Your task to perform on an android device: open app "VLC for Android" Image 0: 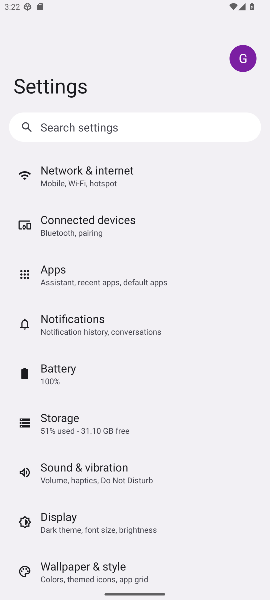
Step 0: press home button
Your task to perform on an android device: open app "VLC for Android" Image 1: 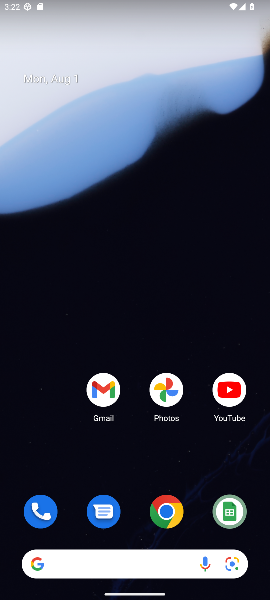
Step 1: drag from (105, 487) to (105, 24)
Your task to perform on an android device: open app "VLC for Android" Image 2: 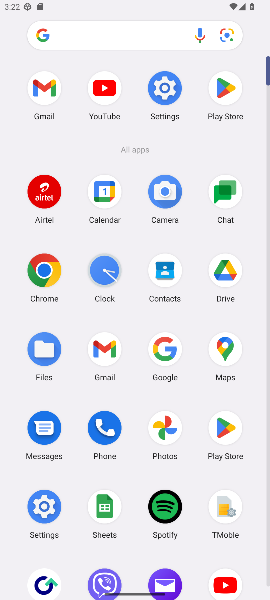
Step 2: click (229, 431)
Your task to perform on an android device: open app "VLC for Android" Image 3: 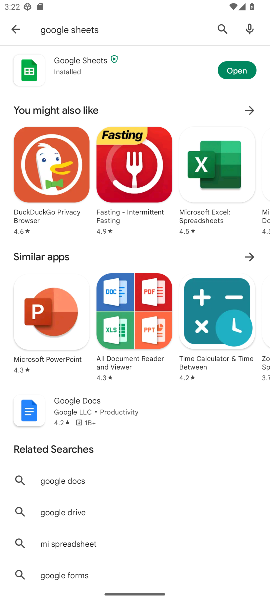
Step 3: click (19, 33)
Your task to perform on an android device: open app "VLC for Android" Image 4: 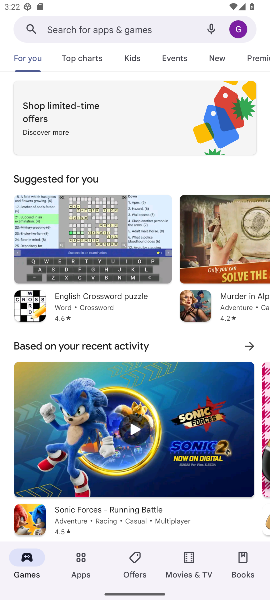
Step 4: click (112, 33)
Your task to perform on an android device: open app "VLC for Android" Image 5: 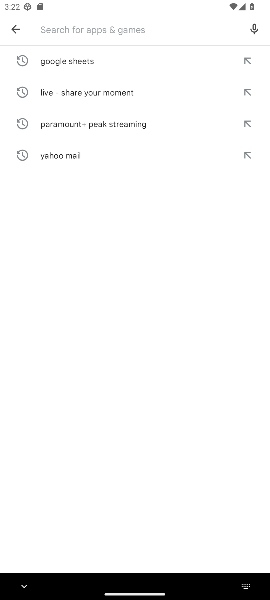
Step 5: type "VLC for Android"
Your task to perform on an android device: open app "VLC for Android" Image 6: 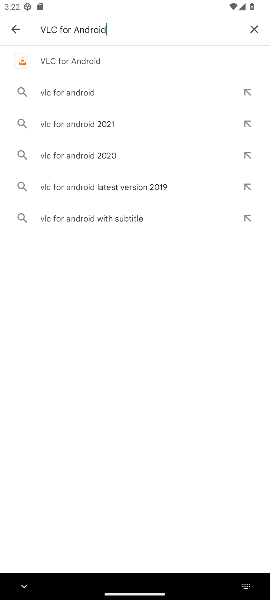
Step 6: click (52, 64)
Your task to perform on an android device: open app "VLC for Android" Image 7: 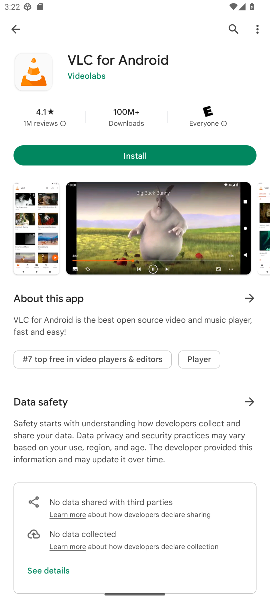
Step 7: click (131, 157)
Your task to perform on an android device: open app "VLC for Android" Image 8: 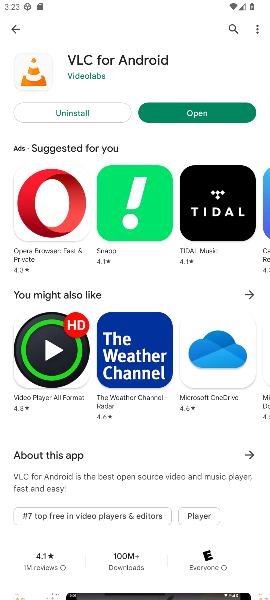
Step 8: click (214, 105)
Your task to perform on an android device: open app "VLC for Android" Image 9: 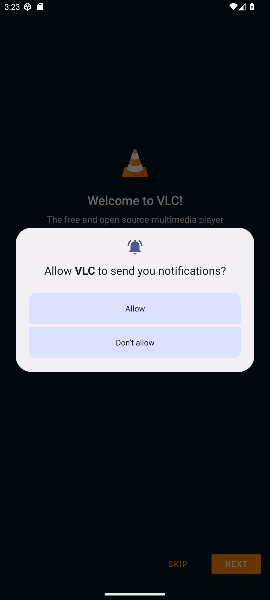
Step 9: click (121, 305)
Your task to perform on an android device: open app "VLC for Android" Image 10: 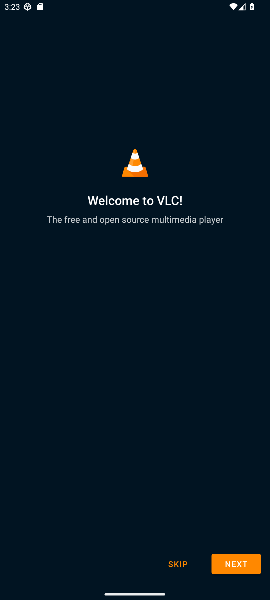
Step 10: task complete